Your task to perform on an android device: Check the weather Image 0: 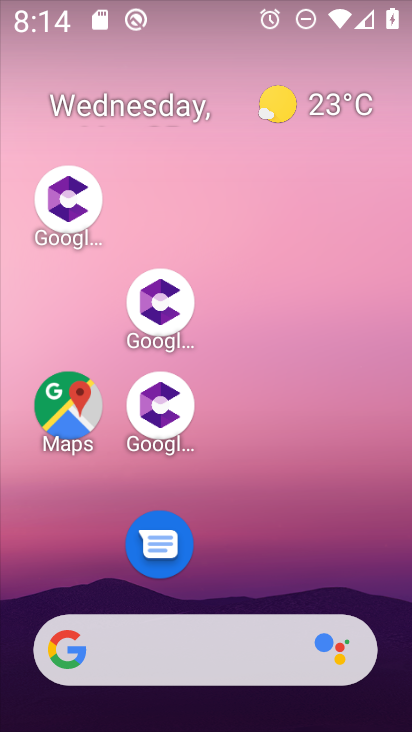
Step 0: click (275, 517)
Your task to perform on an android device: Check the weather Image 1: 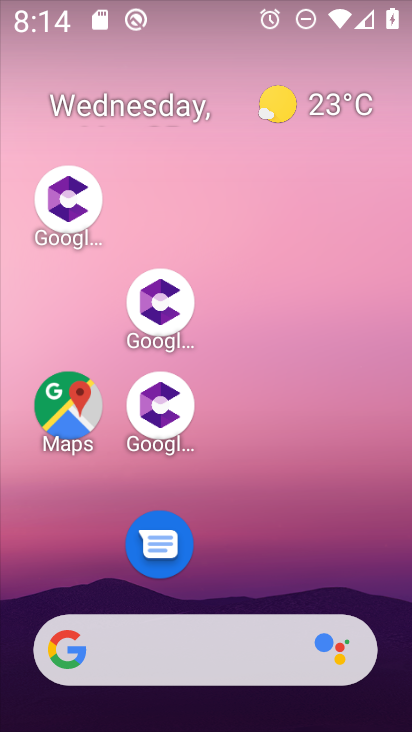
Step 1: click (223, 655)
Your task to perform on an android device: Check the weather Image 2: 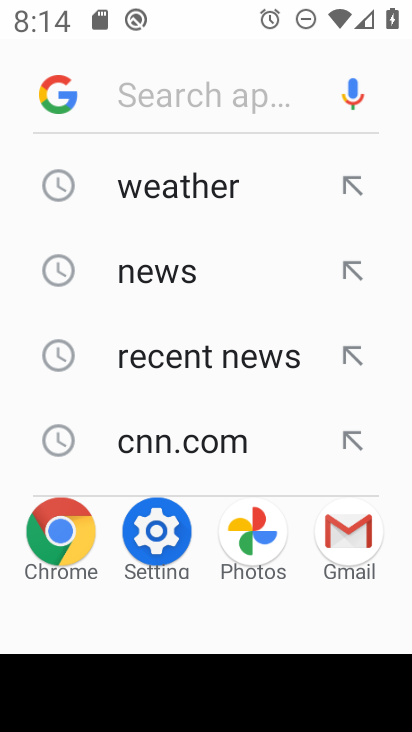
Step 2: click (146, 180)
Your task to perform on an android device: Check the weather Image 3: 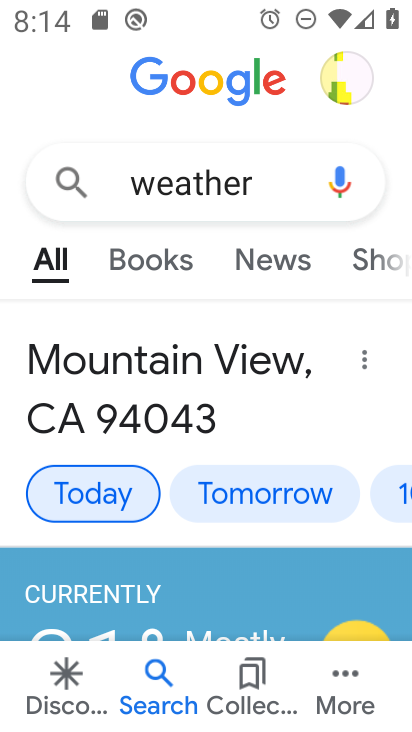
Step 3: task complete